Your task to perform on an android device: uninstall "ColorNote Notepad Notes" Image 0: 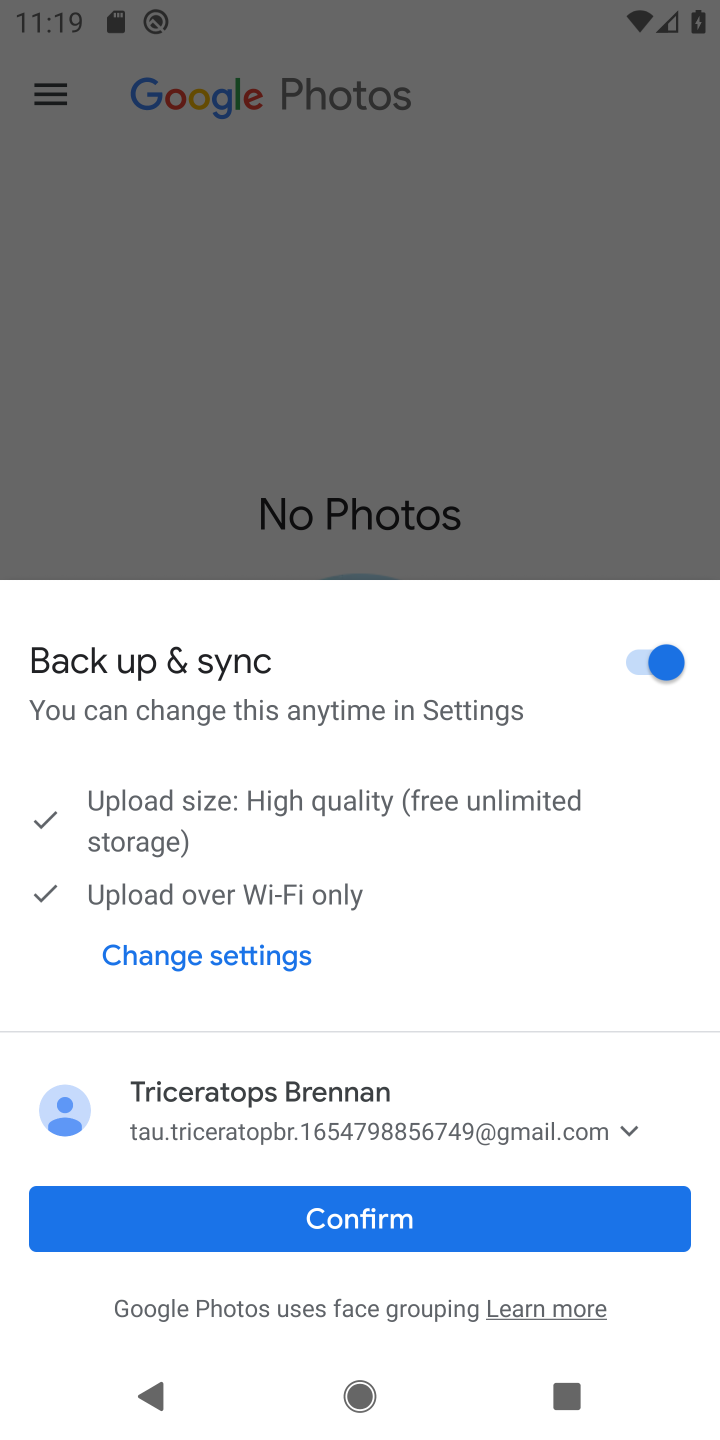
Step 0: press home button
Your task to perform on an android device: uninstall "ColorNote Notepad Notes" Image 1: 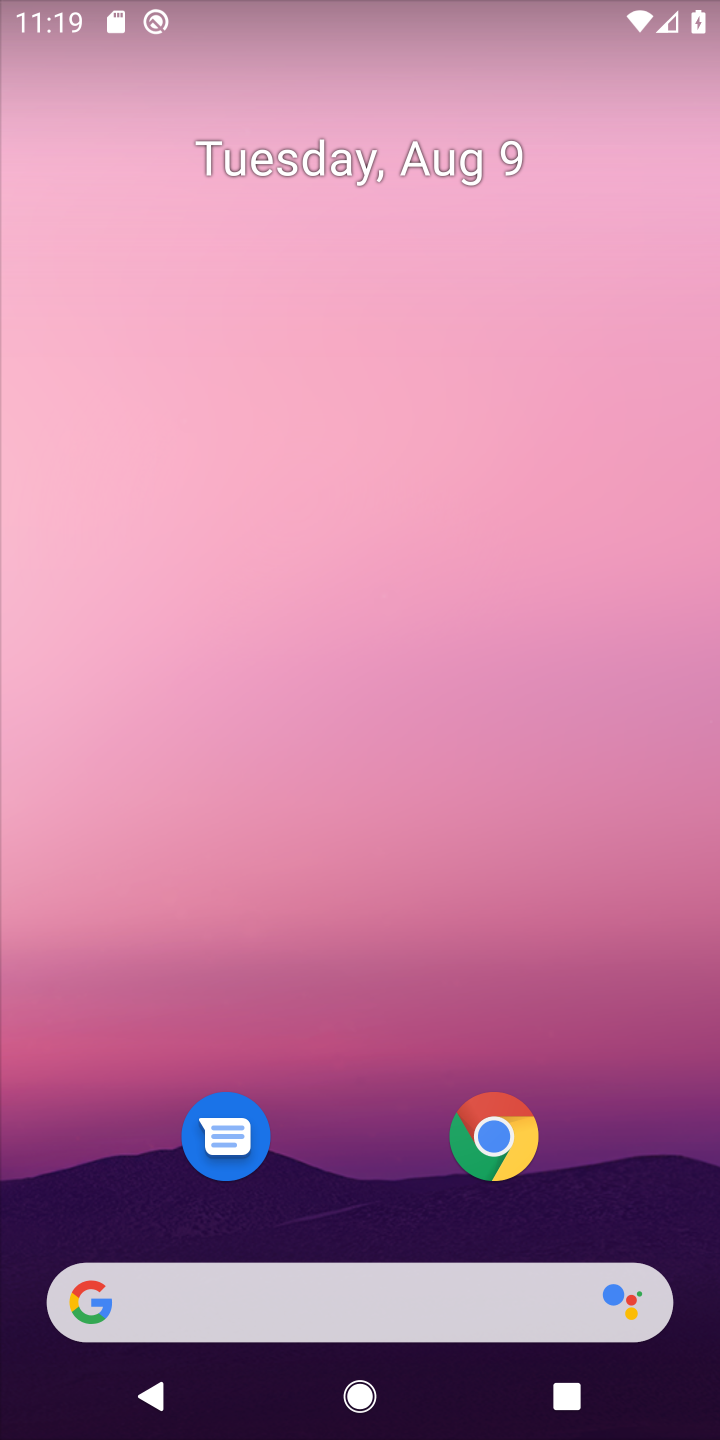
Step 1: drag from (328, 1221) to (251, 6)
Your task to perform on an android device: uninstall "ColorNote Notepad Notes" Image 2: 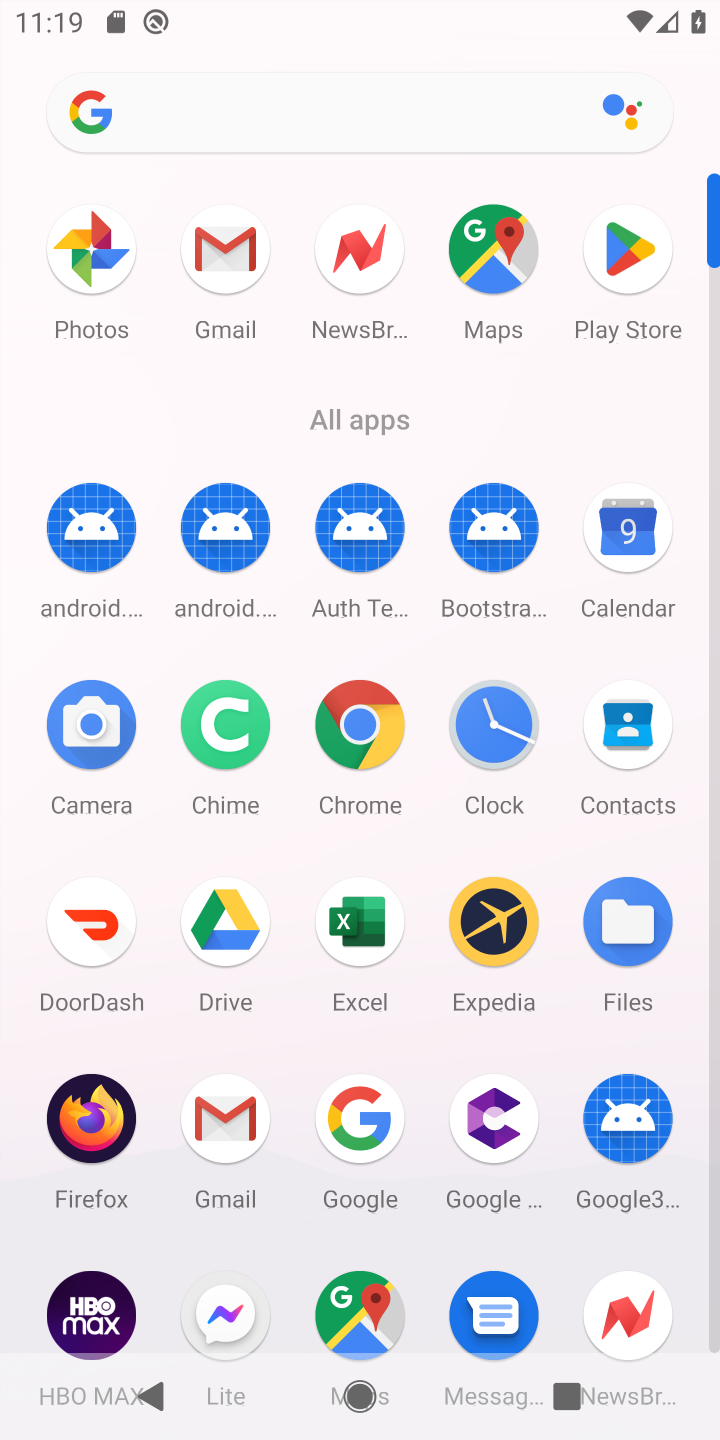
Step 2: drag from (359, 1098) to (425, 710)
Your task to perform on an android device: uninstall "ColorNote Notepad Notes" Image 3: 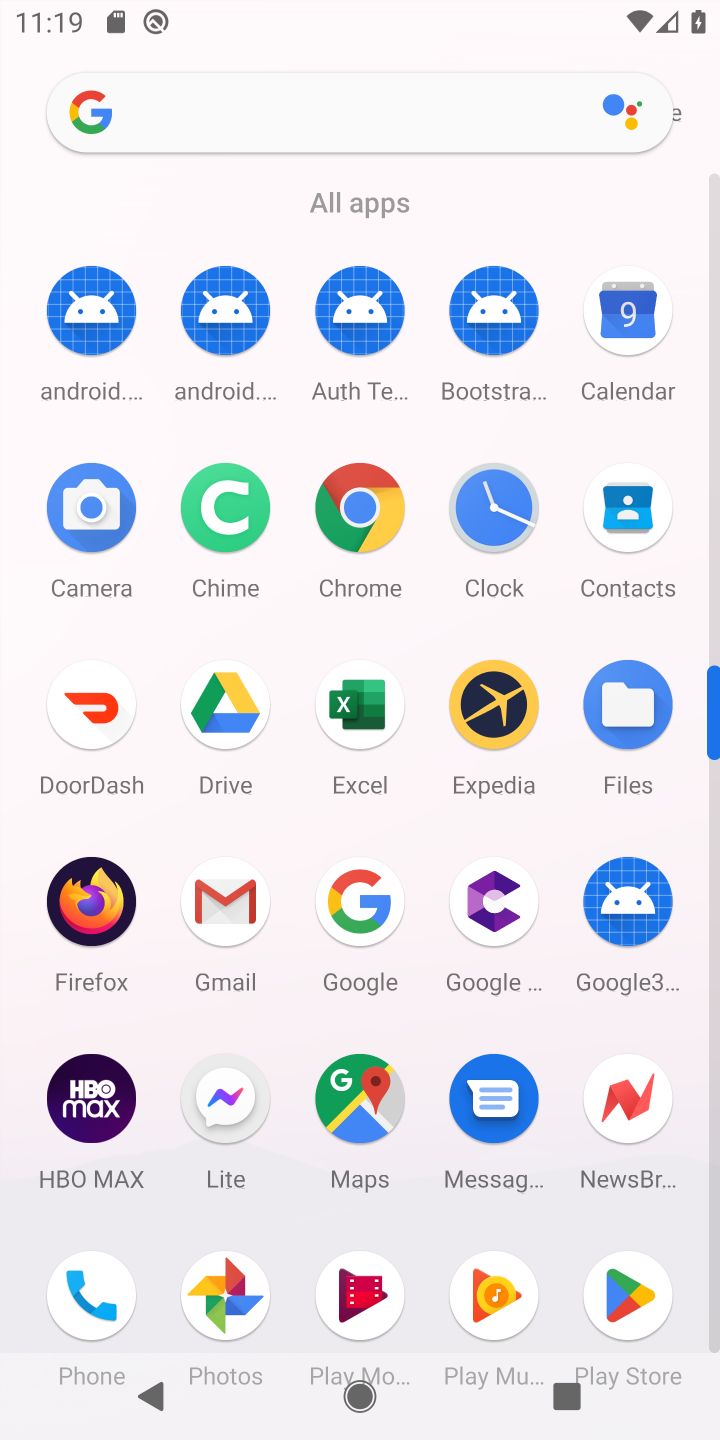
Step 3: click (636, 1300)
Your task to perform on an android device: uninstall "ColorNote Notepad Notes" Image 4: 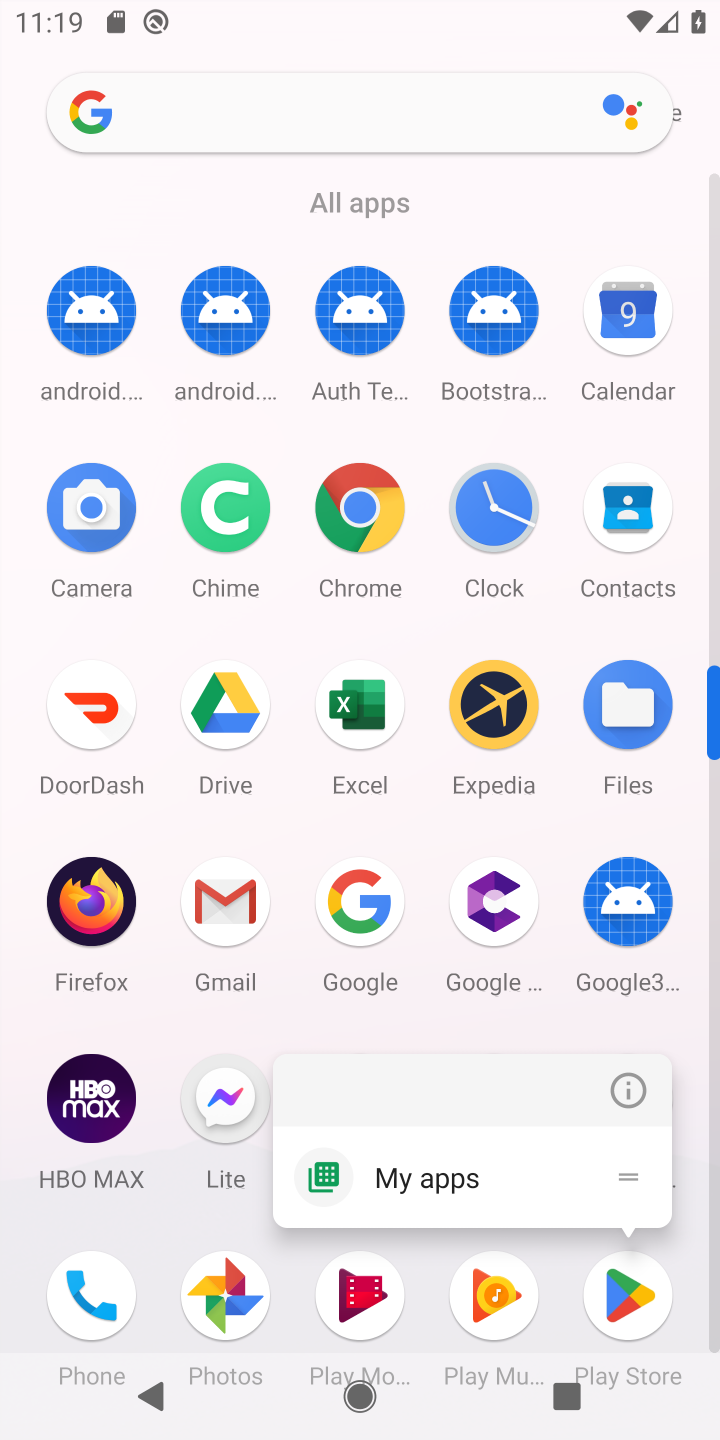
Step 4: click (631, 1300)
Your task to perform on an android device: uninstall "ColorNote Notepad Notes" Image 5: 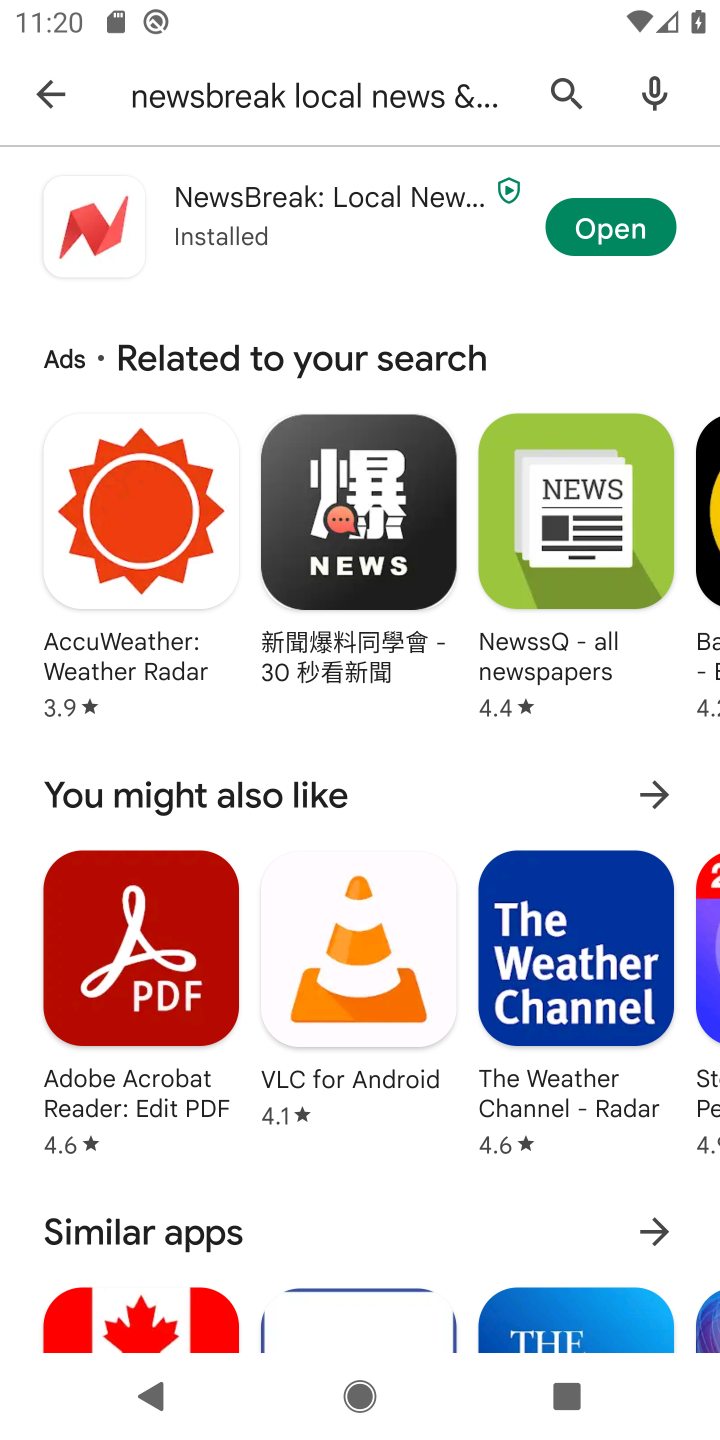
Step 5: click (46, 83)
Your task to perform on an android device: uninstall "ColorNote Notepad Notes" Image 6: 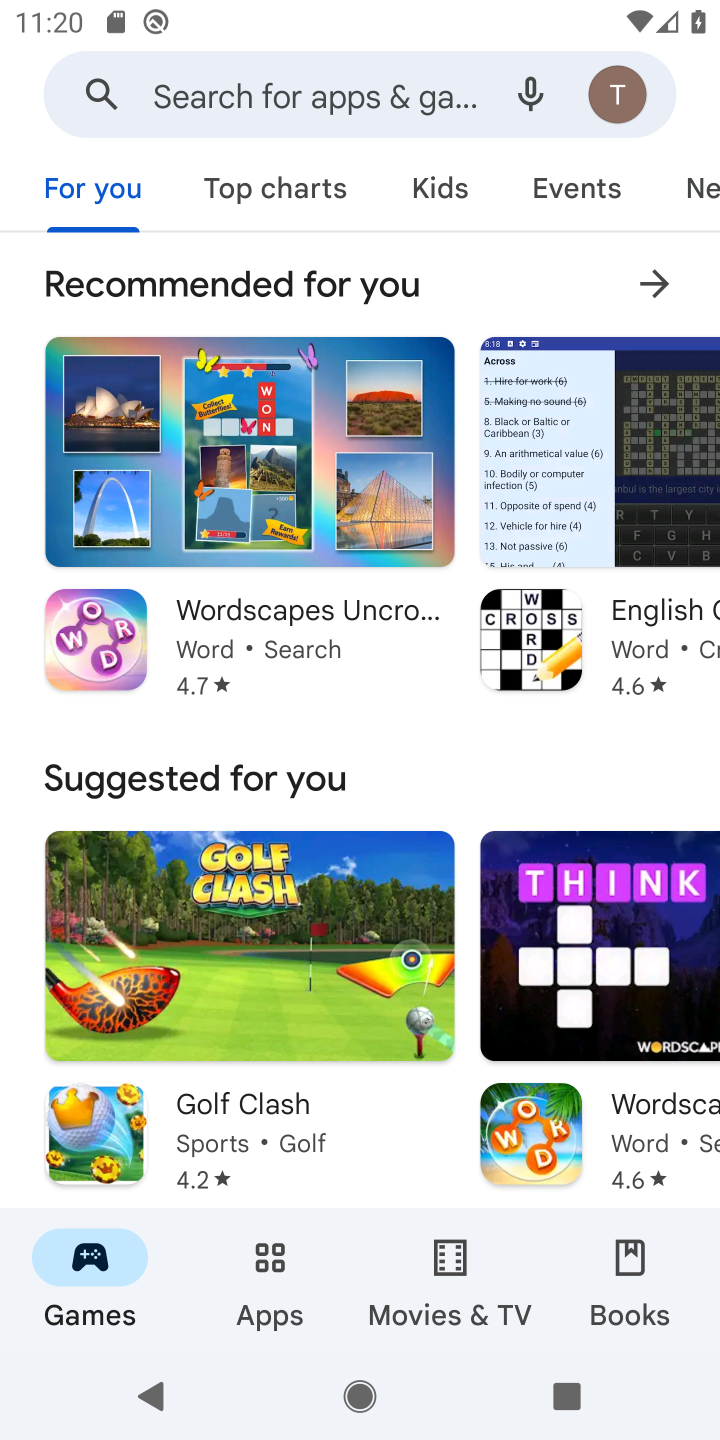
Step 6: click (258, 90)
Your task to perform on an android device: uninstall "ColorNote Notepad Notes" Image 7: 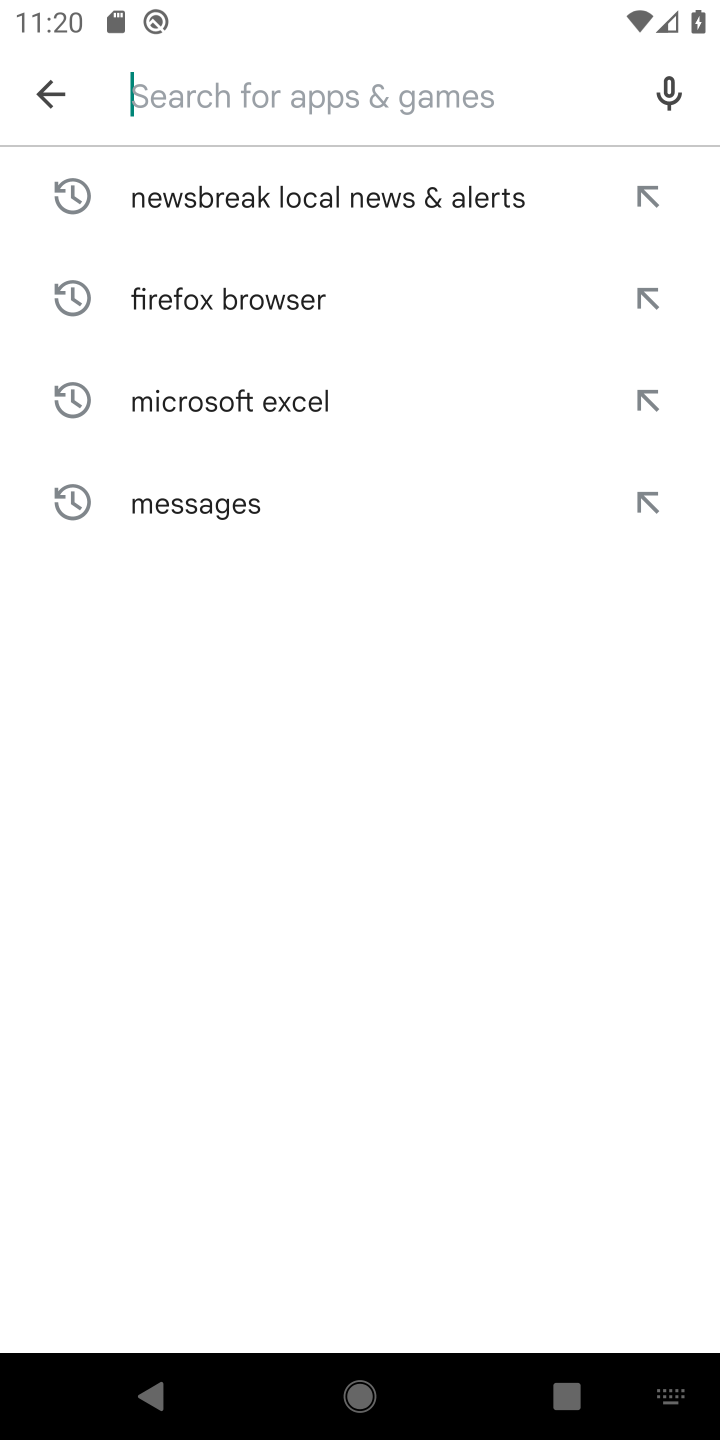
Step 7: type "colorNote Notepad Notes"
Your task to perform on an android device: uninstall "ColorNote Notepad Notes" Image 8: 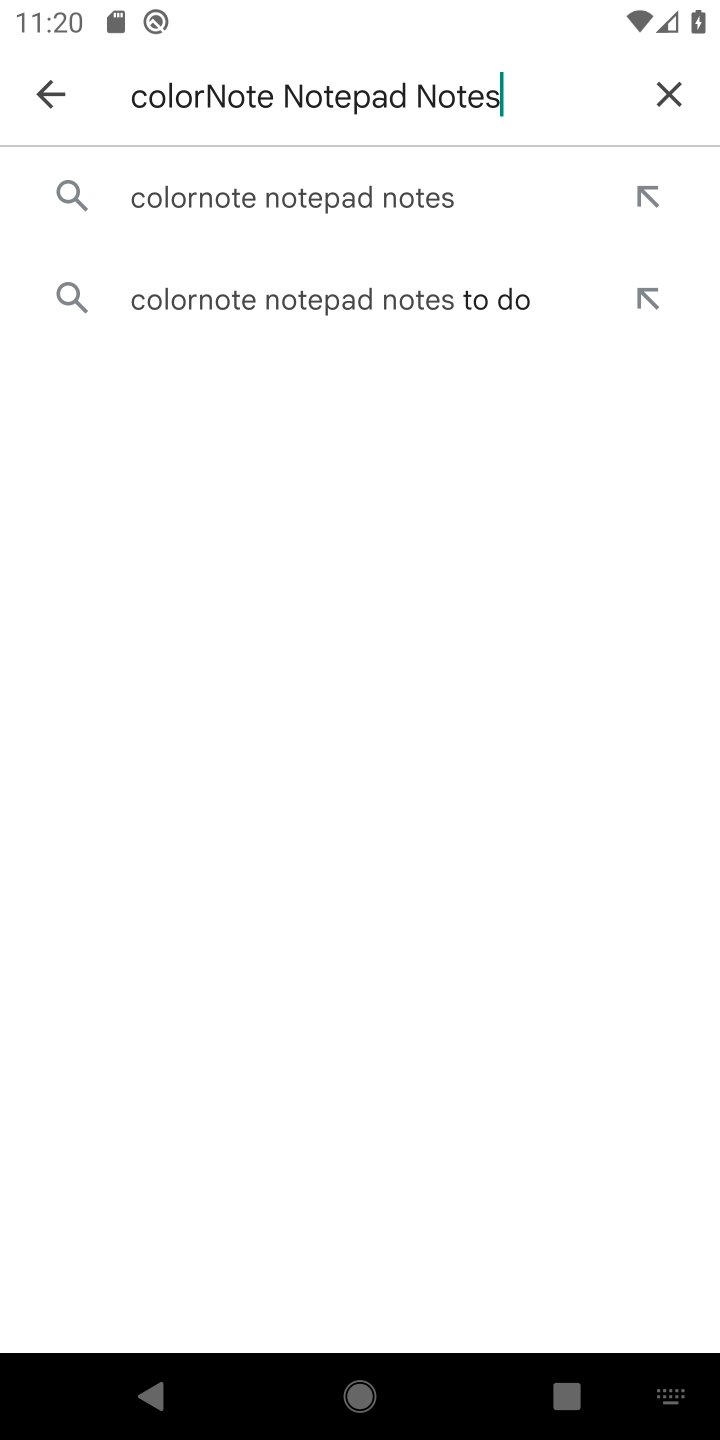
Step 8: click (294, 167)
Your task to perform on an android device: uninstall "ColorNote Notepad Notes" Image 9: 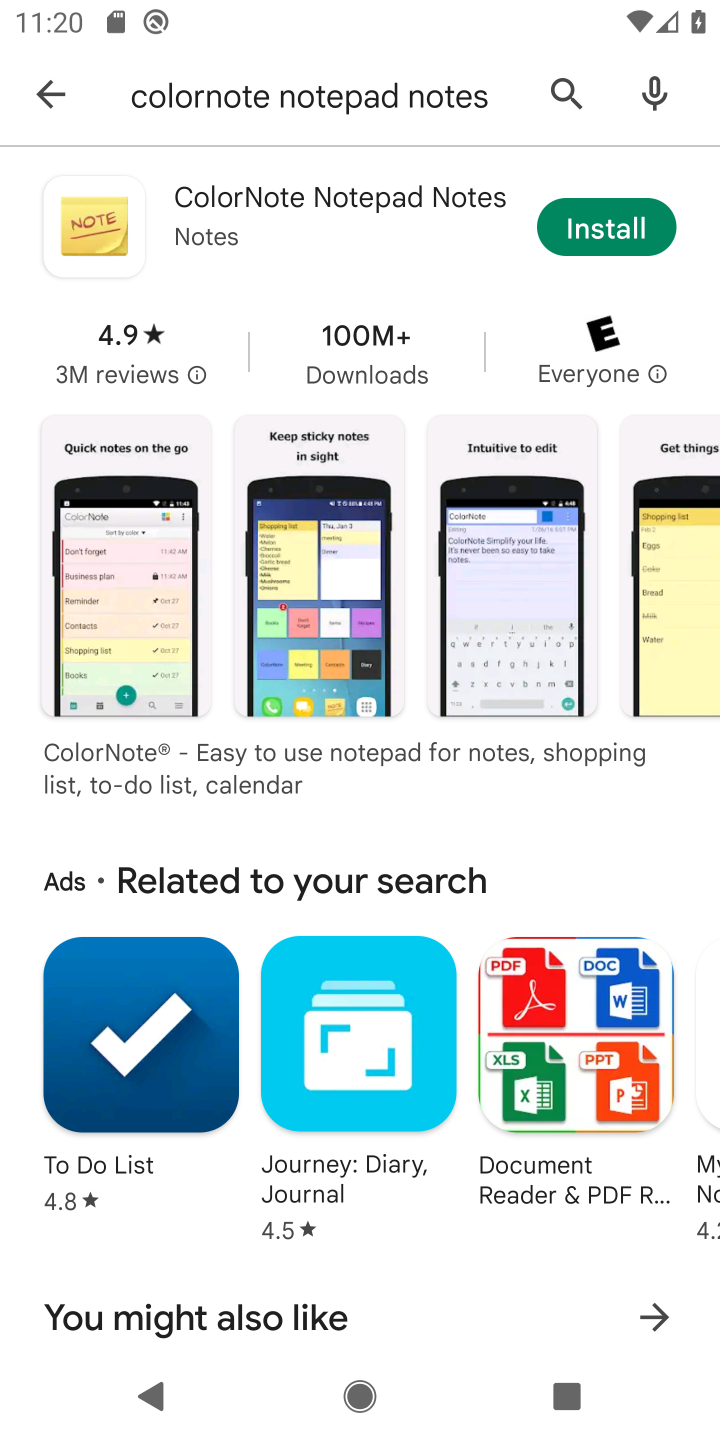
Step 9: task complete